Your task to perform on an android device: Search for Italian restaurants on Maps Image 0: 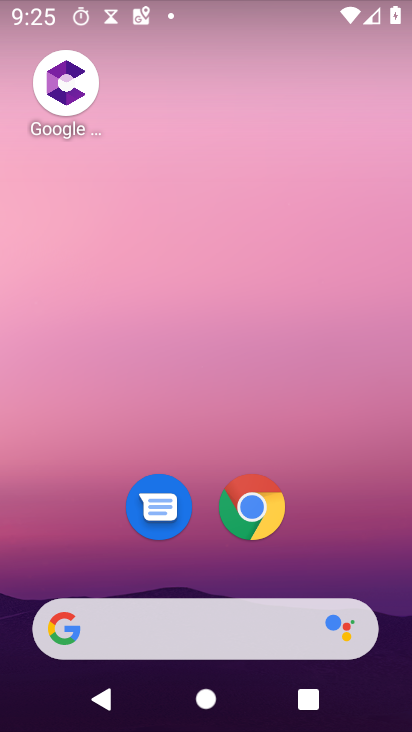
Step 0: drag from (215, 468) to (269, 34)
Your task to perform on an android device: Search for Italian restaurants on Maps Image 1: 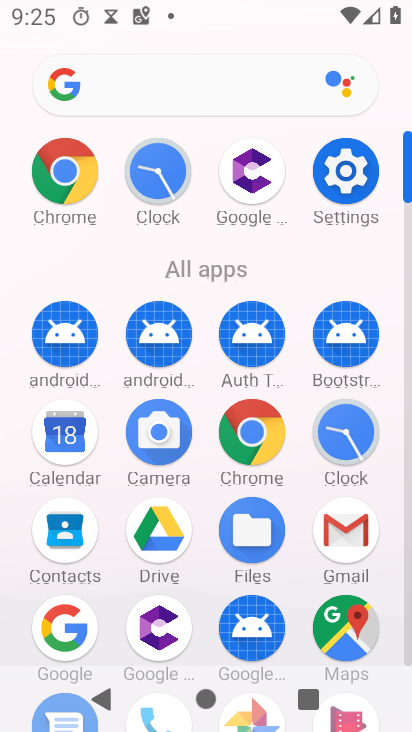
Step 1: click (343, 623)
Your task to perform on an android device: Search for Italian restaurants on Maps Image 2: 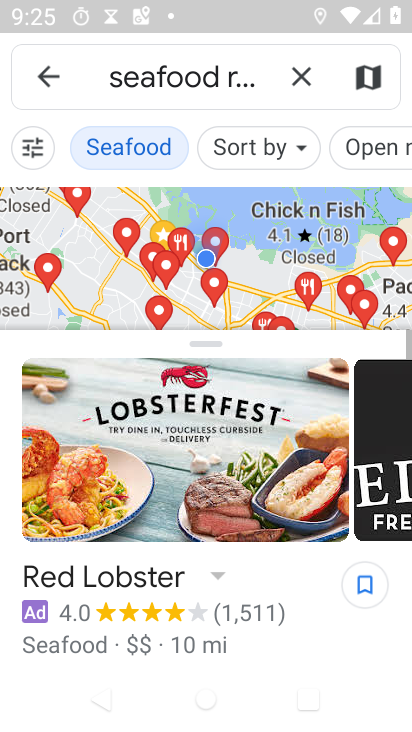
Step 2: click (308, 83)
Your task to perform on an android device: Search for Italian restaurants on Maps Image 3: 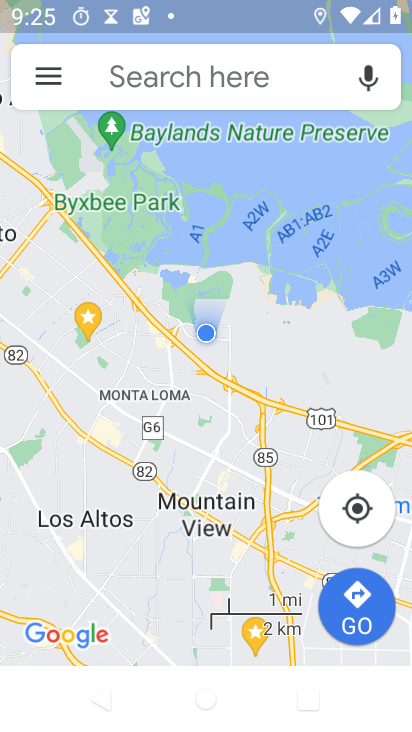
Step 3: click (215, 83)
Your task to perform on an android device: Search for Italian restaurants on Maps Image 4: 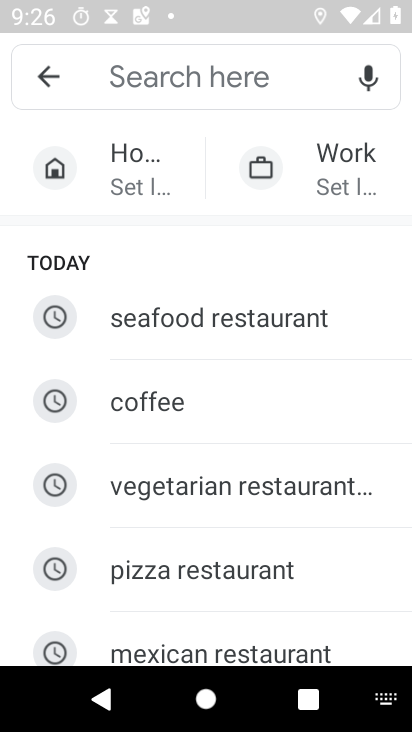
Step 4: type "italian restaurants"
Your task to perform on an android device: Search for Italian restaurants on Maps Image 5: 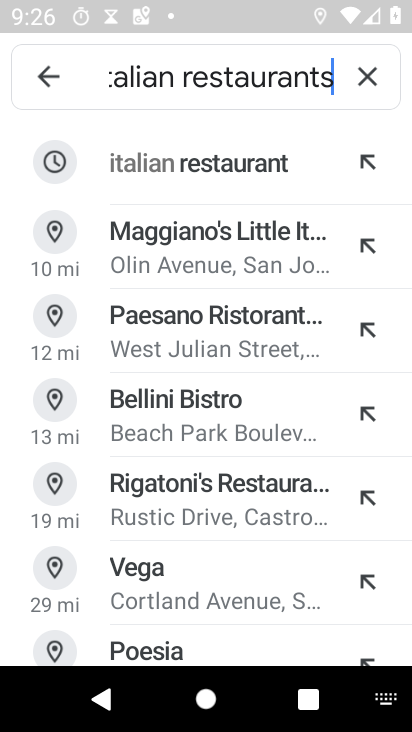
Step 5: click (283, 156)
Your task to perform on an android device: Search for Italian restaurants on Maps Image 6: 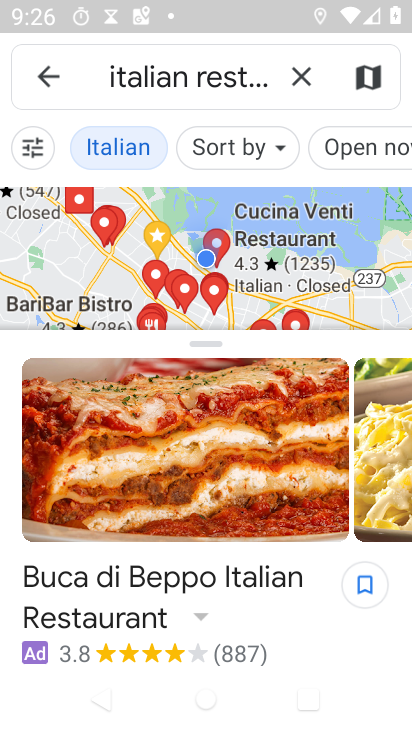
Step 6: task complete